Your task to perform on an android device: open app "Pluto TV - Live TV and Movies" (install if not already installed) and go to login screen Image 0: 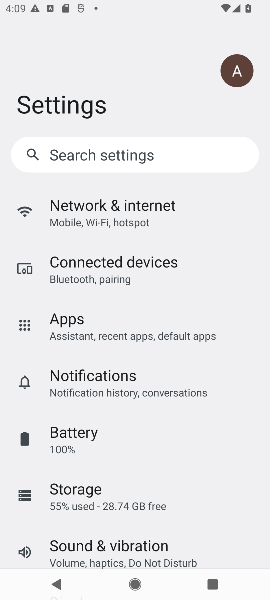
Step 0: press home button
Your task to perform on an android device: open app "Pluto TV - Live TV and Movies" (install if not already installed) and go to login screen Image 1: 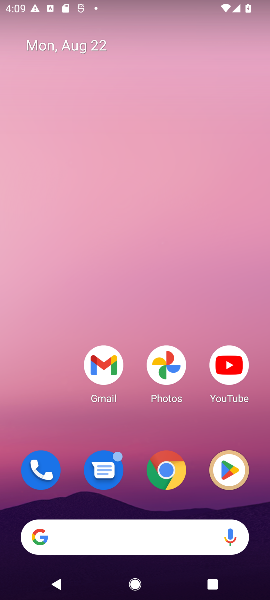
Step 1: drag from (85, 522) to (103, 114)
Your task to perform on an android device: open app "Pluto TV - Live TV and Movies" (install if not already installed) and go to login screen Image 2: 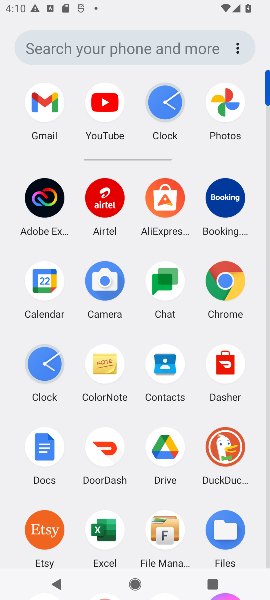
Step 2: drag from (134, 461) to (141, 97)
Your task to perform on an android device: open app "Pluto TV - Live TV and Movies" (install if not already installed) and go to login screen Image 3: 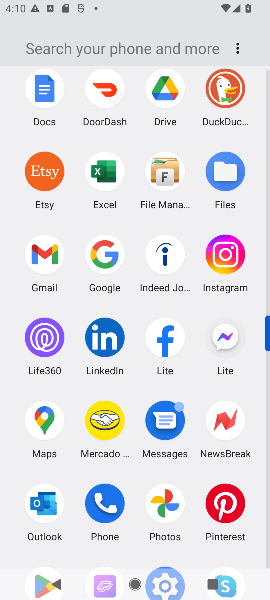
Step 3: drag from (139, 529) to (143, 148)
Your task to perform on an android device: open app "Pluto TV - Live TV and Movies" (install if not already installed) and go to login screen Image 4: 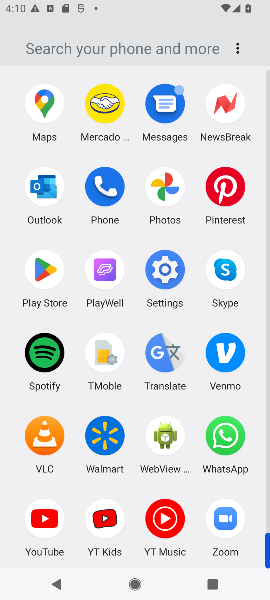
Step 4: drag from (58, 480) to (67, 221)
Your task to perform on an android device: open app "Pluto TV - Live TV and Movies" (install if not already installed) and go to login screen Image 5: 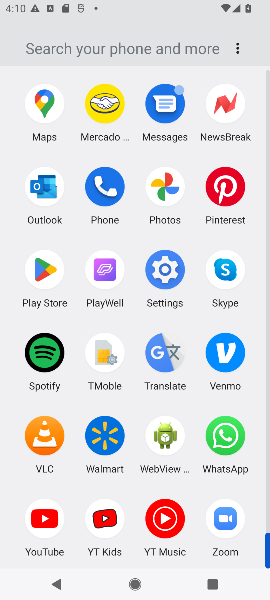
Step 5: click (44, 263)
Your task to perform on an android device: open app "Pluto TV - Live TV and Movies" (install if not already installed) and go to login screen Image 6: 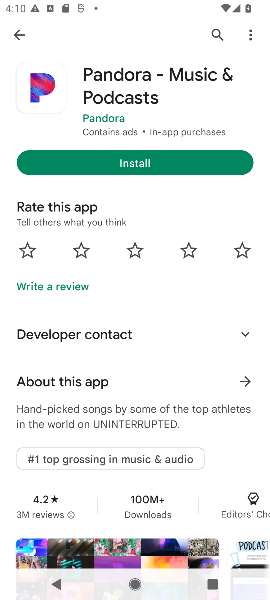
Step 6: click (20, 30)
Your task to perform on an android device: open app "Pluto TV - Live TV and Movies" (install if not already installed) and go to login screen Image 7: 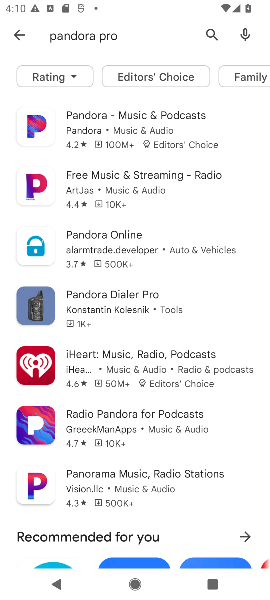
Step 7: click (20, 30)
Your task to perform on an android device: open app "Pluto TV - Live TV and Movies" (install if not already installed) and go to login screen Image 8: 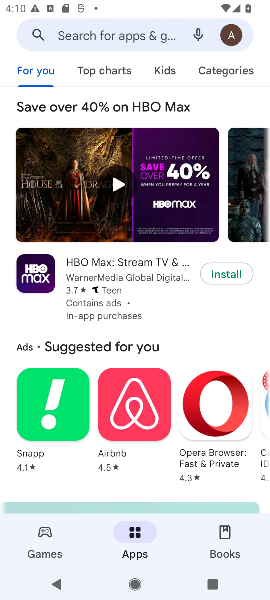
Step 8: click (92, 24)
Your task to perform on an android device: open app "Pluto TV - Live TV and Movies" (install if not already installed) and go to login screen Image 9: 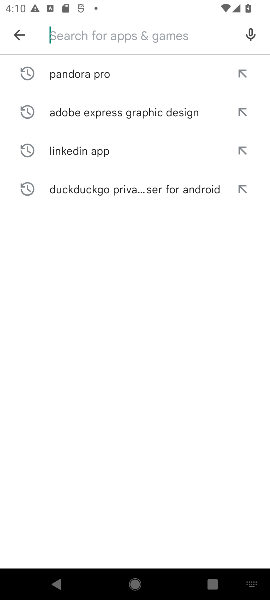
Step 9: type "Pluto TV - Live TV and Movies "
Your task to perform on an android device: open app "Pluto TV - Live TV and Movies" (install if not already installed) and go to login screen Image 10: 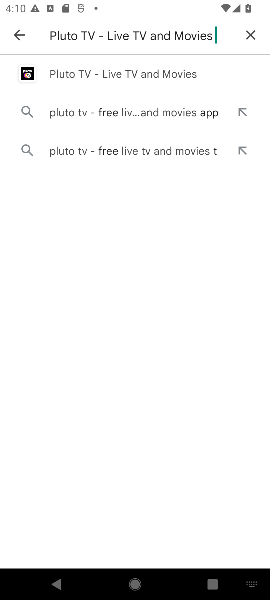
Step 10: click (74, 69)
Your task to perform on an android device: open app "Pluto TV - Live TV and Movies" (install if not already installed) and go to login screen Image 11: 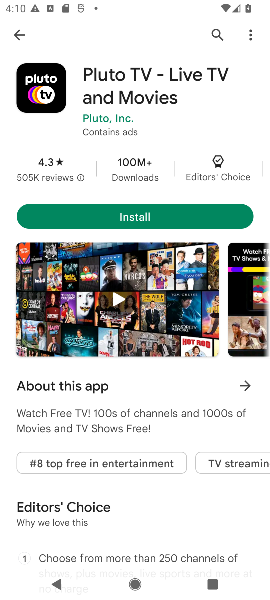
Step 11: click (161, 211)
Your task to perform on an android device: open app "Pluto TV - Live TV and Movies" (install if not already installed) and go to login screen Image 12: 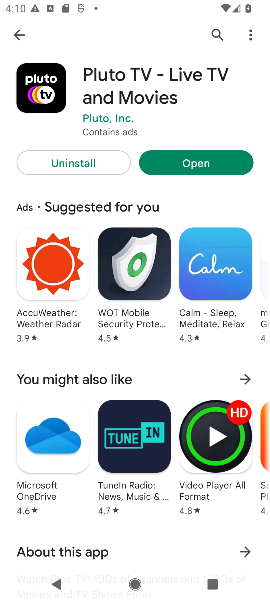
Step 12: click (197, 155)
Your task to perform on an android device: open app "Pluto TV - Live TV and Movies" (install if not already installed) and go to login screen Image 13: 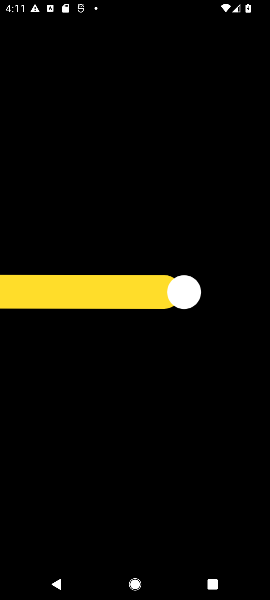
Step 13: task complete